Your task to perform on an android device: open app "ZOOM Cloud Meetings" (install if not already installed) and go to login screen Image 0: 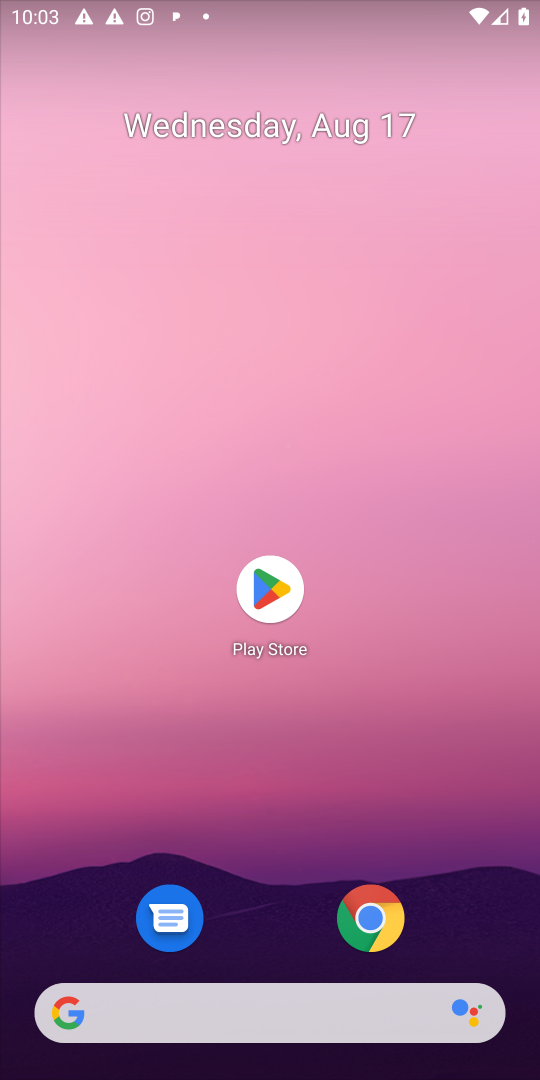
Step 0: press home button
Your task to perform on an android device: open app "ZOOM Cloud Meetings" (install if not already installed) and go to login screen Image 1: 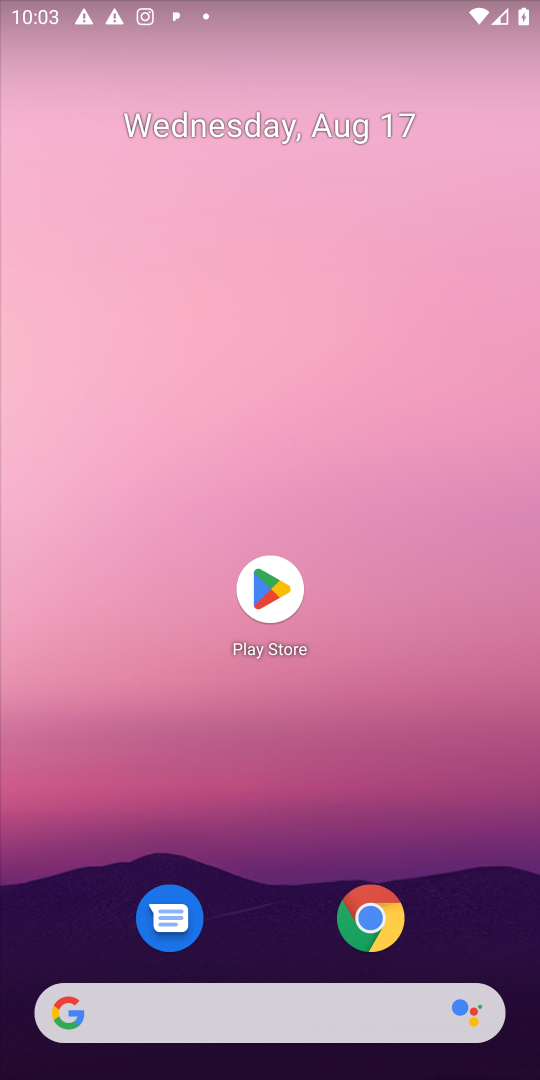
Step 1: click (265, 582)
Your task to perform on an android device: open app "ZOOM Cloud Meetings" (install if not already installed) and go to login screen Image 2: 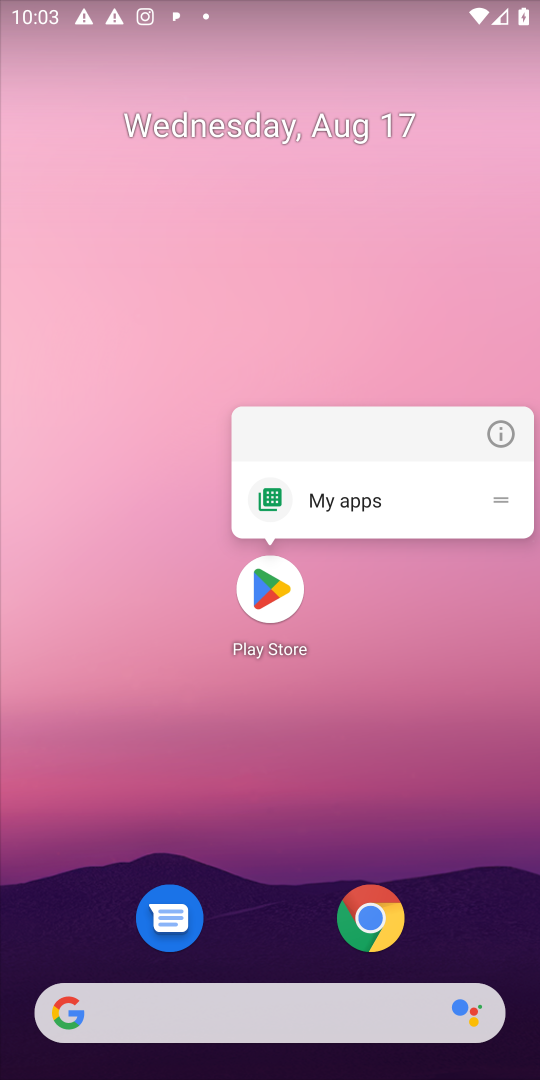
Step 2: click (261, 599)
Your task to perform on an android device: open app "ZOOM Cloud Meetings" (install if not already installed) and go to login screen Image 3: 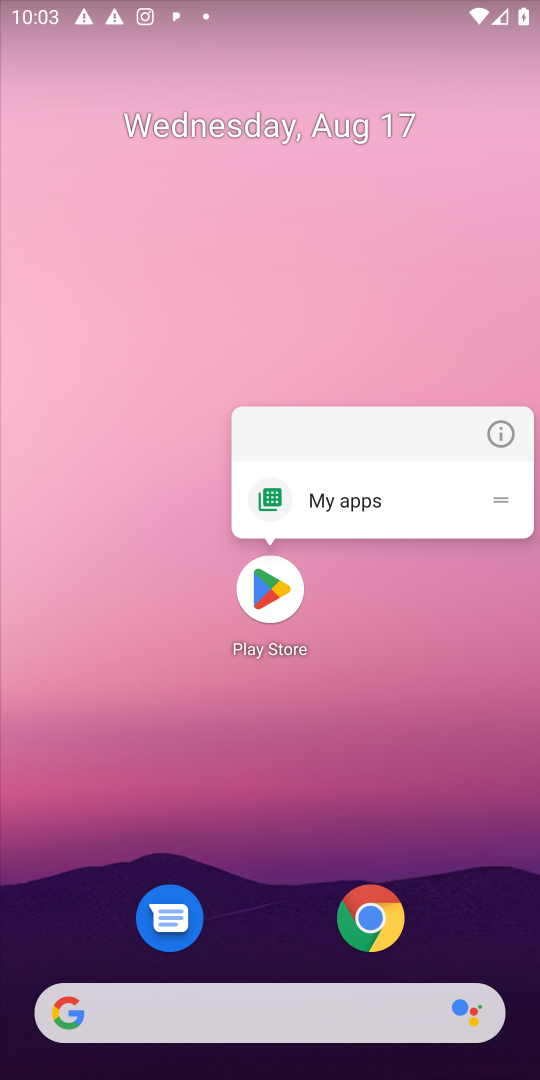
Step 3: click (261, 603)
Your task to perform on an android device: open app "ZOOM Cloud Meetings" (install if not already installed) and go to login screen Image 4: 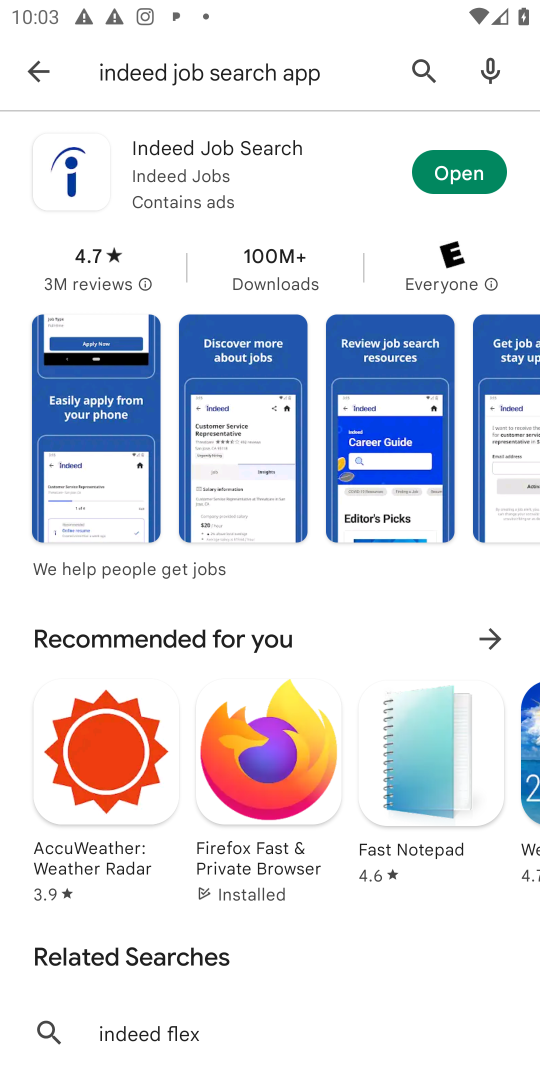
Step 4: click (420, 62)
Your task to perform on an android device: open app "ZOOM Cloud Meetings" (install if not already installed) and go to login screen Image 5: 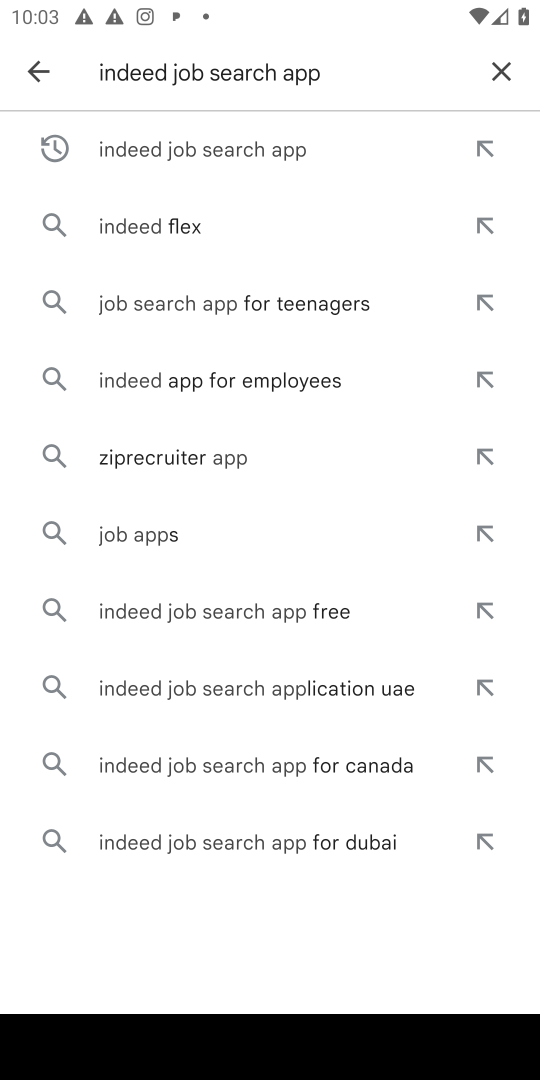
Step 5: click (508, 69)
Your task to perform on an android device: open app "ZOOM Cloud Meetings" (install if not already installed) and go to login screen Image 6: 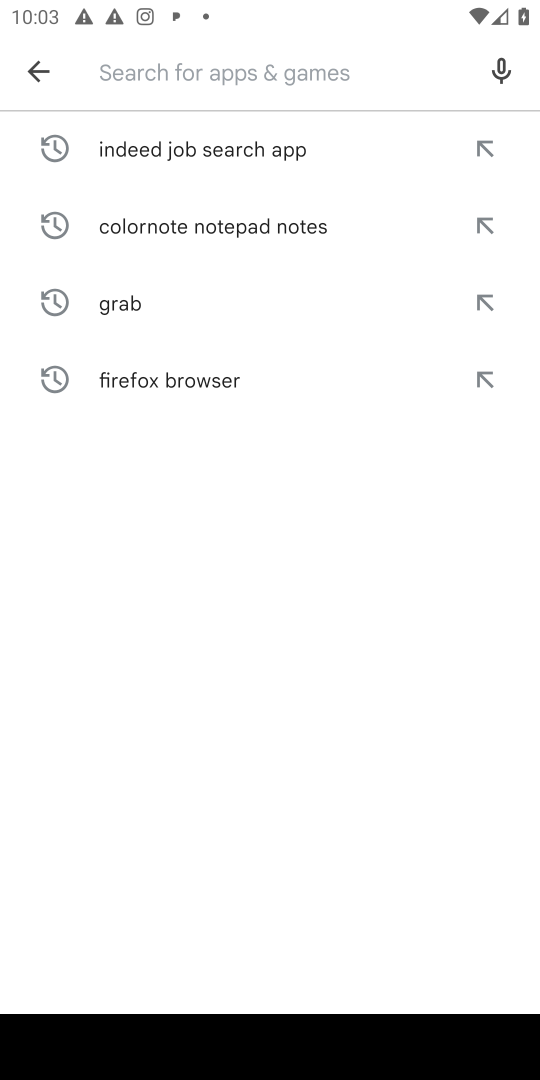
Step 6: type "ZOOM Cloud Meetings"
Your task to perform on an android device: open app "ZOOM Cloud Meetings" (install if not already installed) and go to login screen Image 7: 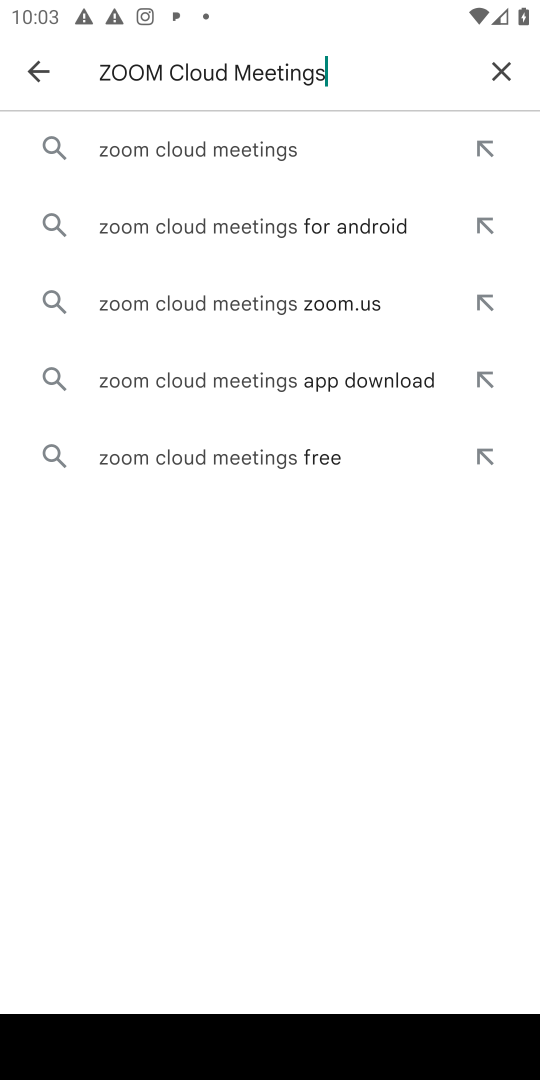
Step 7: click (272, 155)
Your task to perform on an android device: open app "ZOOM Cloud Meetings" (install if not already installed) and go to login screen Image 8: 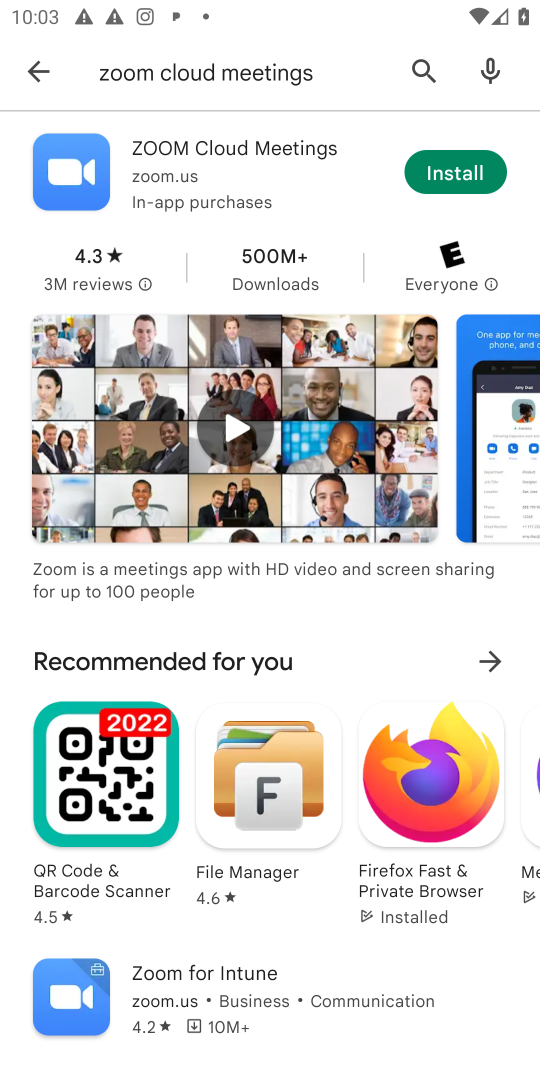
Step 8: click (449, 163)
Your task to perform on an android device: open app "ZOOM Cloud Meetings" (install if not already installed) and go to login screen Image 9: 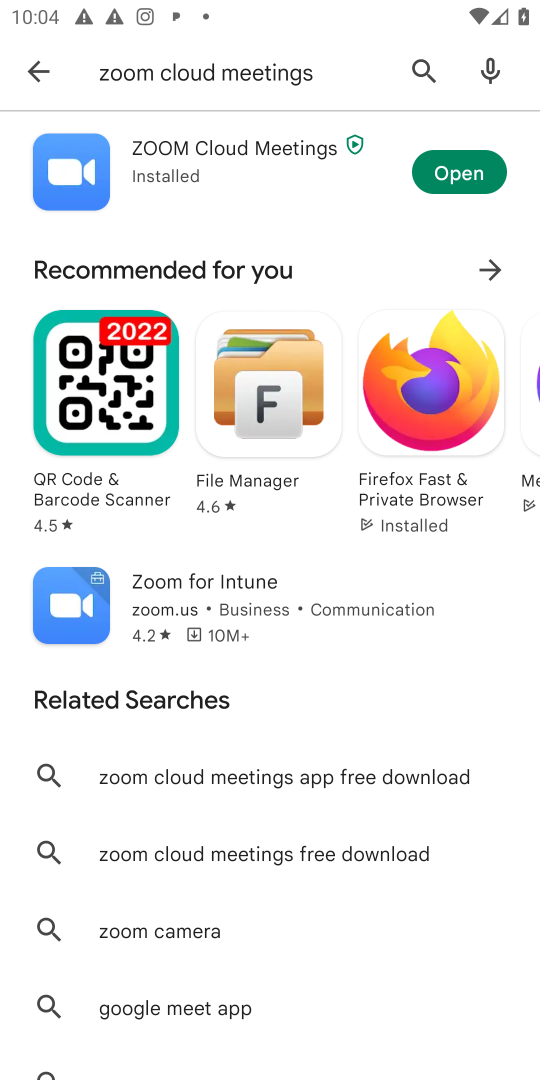
Step 9: click (448, 170)
Your task to perform on an android device: open app "ZOOM Cloud Meetings" (install if not already installed) and go to login screen Image 10: 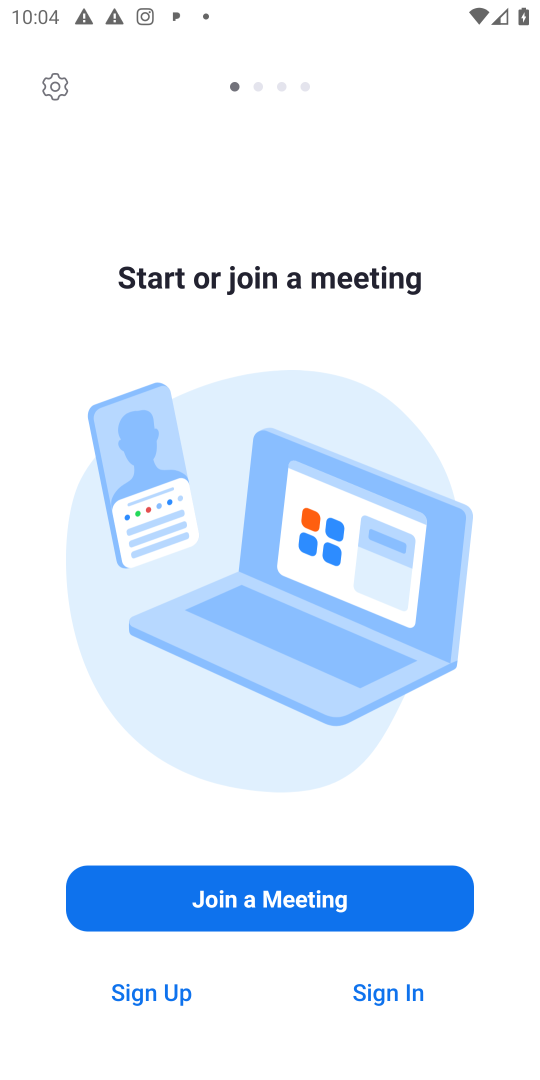
Step 10: task complete